Your task to perform on an android device: Go to Yahoo.com Image 0: 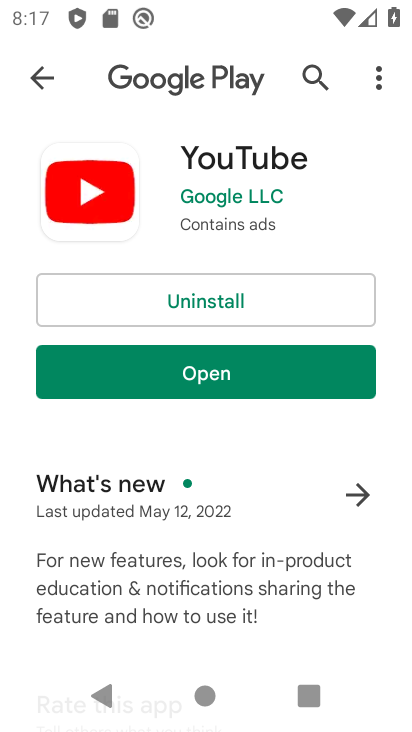
Step 0: press home button
Your task to perform on an android device: Go to Yahoo.com Image 1: 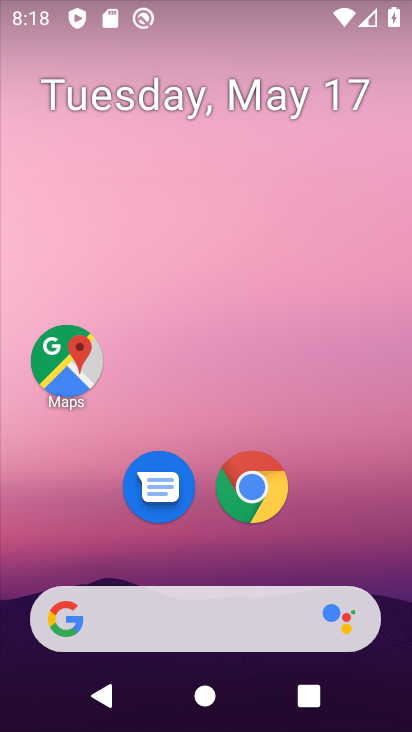
Step 1: drag from (317, 655) to (341, 212)
Your task to perform on an android device: Go to Yahoo.com Image 2: 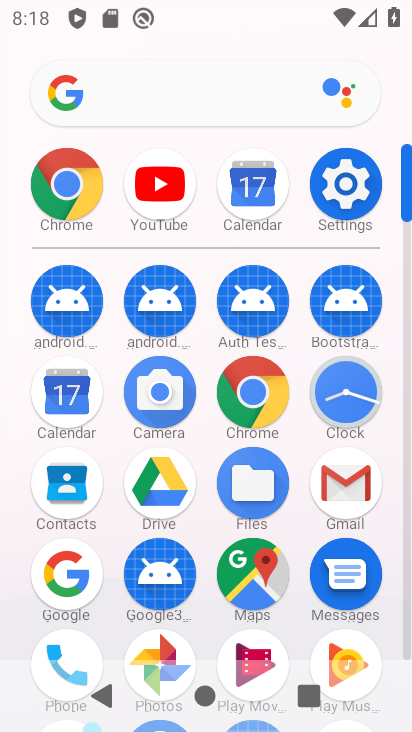
Step 2: click (270, 426)
Your task to perform on an android device: Go to Yahoo.com Image 3: 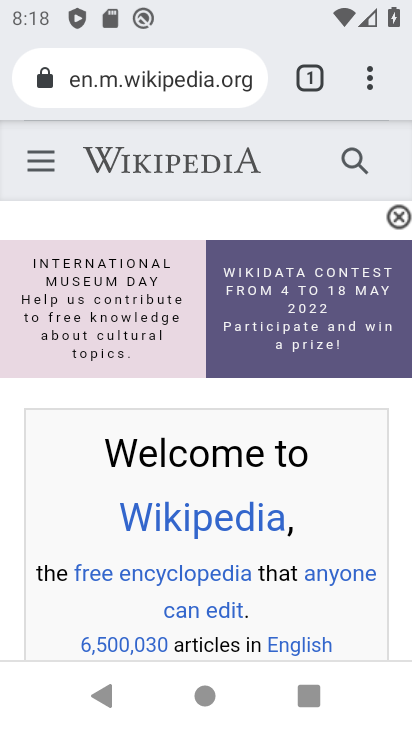
Step 3: click (155, 71)
Your task to perform on an android device: Go to Yahoo.com Image 4: 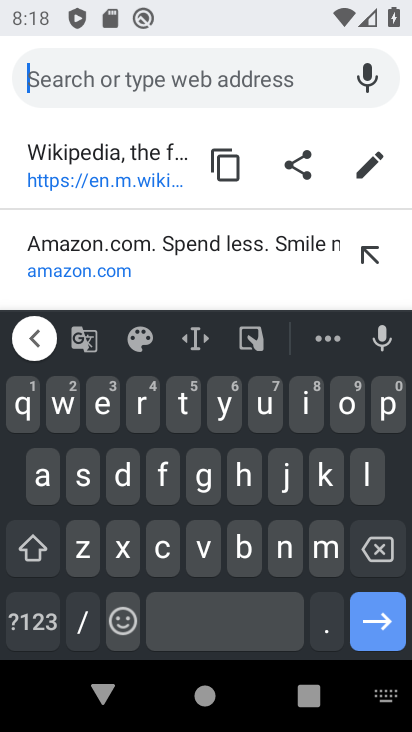
Step 4: click (217, 407)
Your task to perform on an android device: Go to Yahoo.com Image 5: 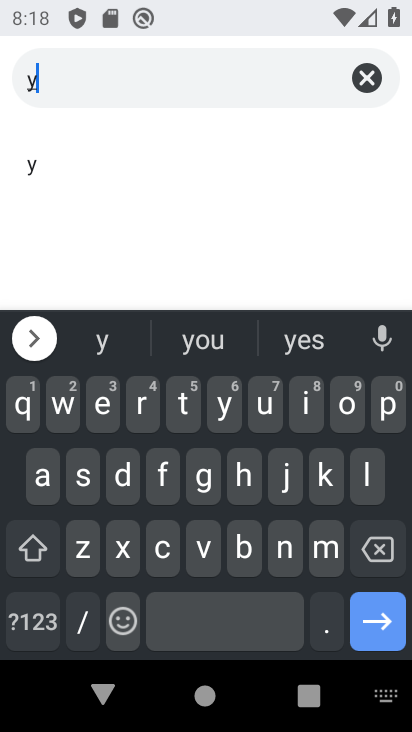
Step 5: click (45, 459)
Your task to perform on an android device: Go to Yahoo.com Image 6: 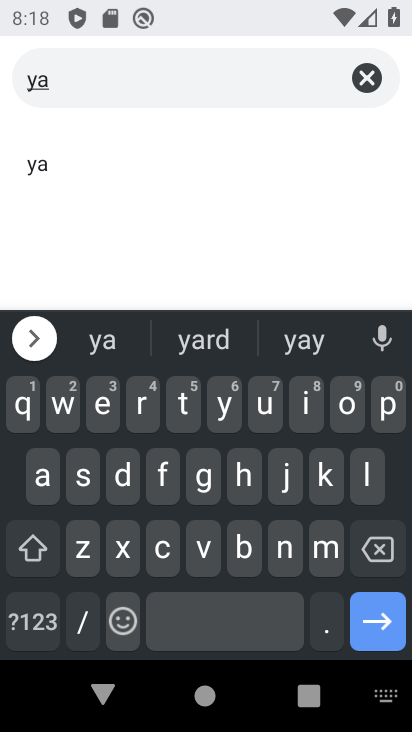
Step 6: click (235, 467)
Your task to perform on an android device: Go to Yahoo.com Image 7: 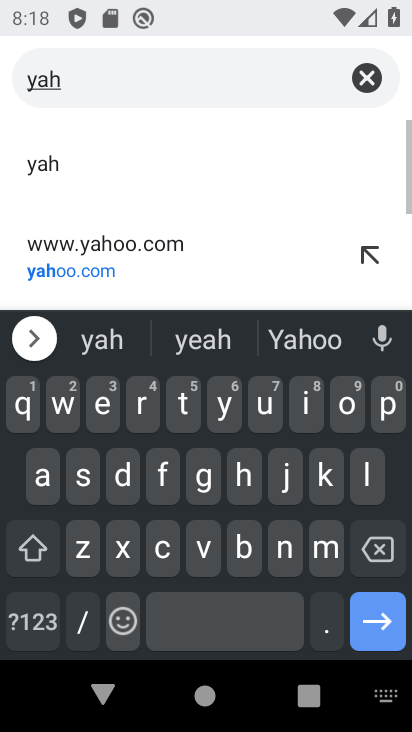
Step 7: click (178, 259)
Your task to perform on an android device: Go to Yahoo.com Image 8: 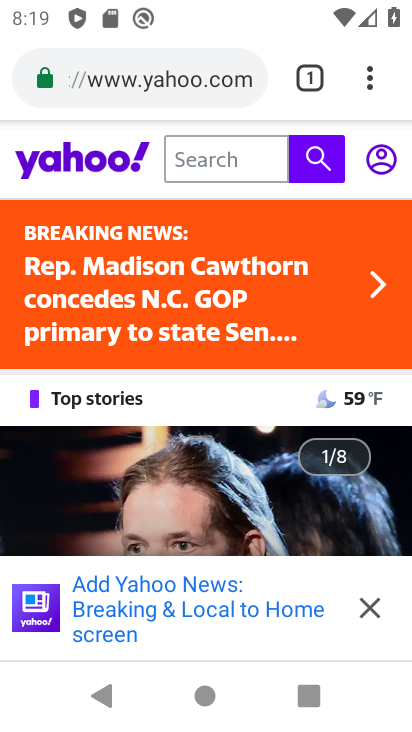
Step 8: task complete